Your task to perform on an android device: search for starred emails in the gmail app Image 0: 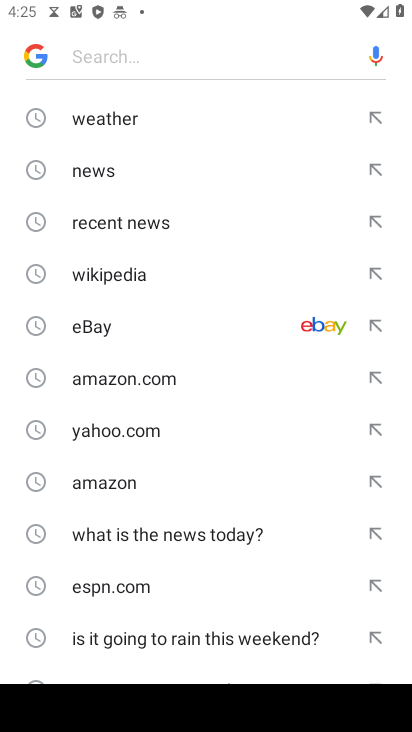
Step 0: press back button
Your task to perform on an android device: search for starred emails in the gmail app Image 1: 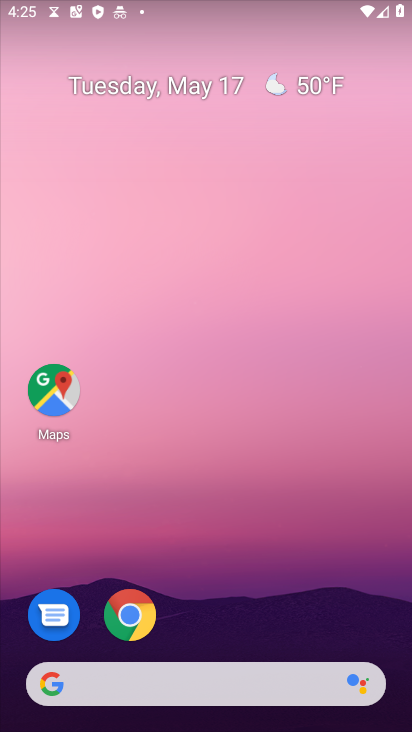
Step 1: drag from (295, 641) to (112, 118)
Your task to perform on an android device: search for starred emails in the gmail app Image 2: 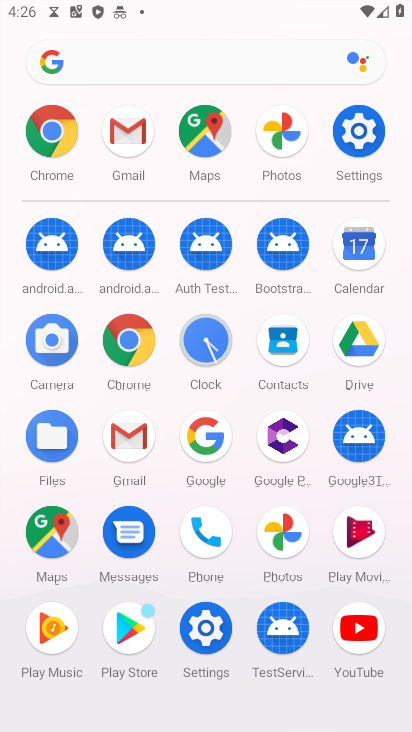
Step 2: click (133, 436)
Your task to perform on an android device: search for starred emails in the gmail app Image 3: 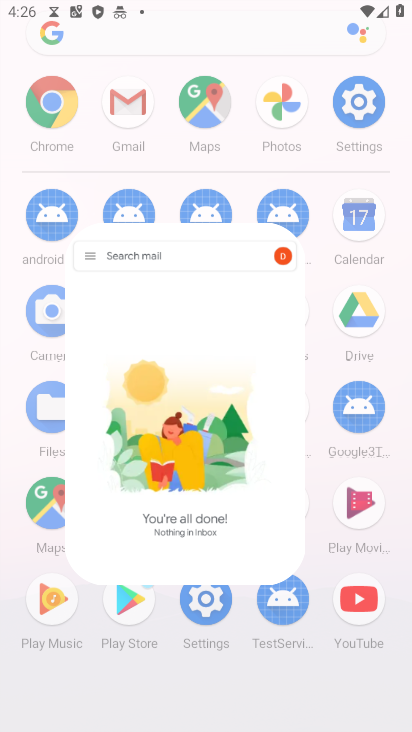
Step 3: click (133, 436)
Your task to perform on an android device: search for starred emails in the gmail app Image 4: 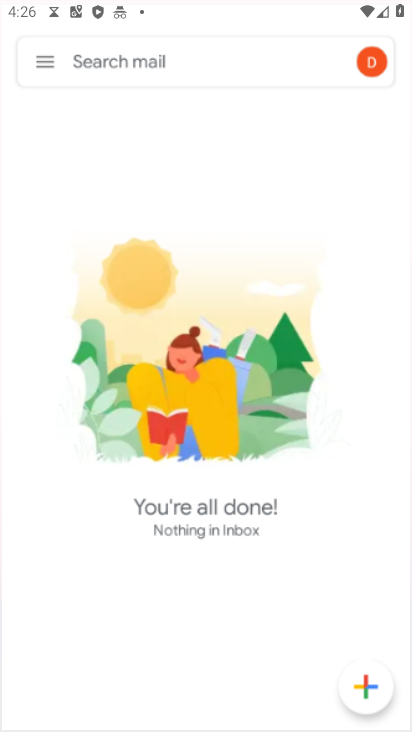
Step 4: click (133, 436)
Your task to perform on an android device: search for starred emails in the gmail app Image 5: 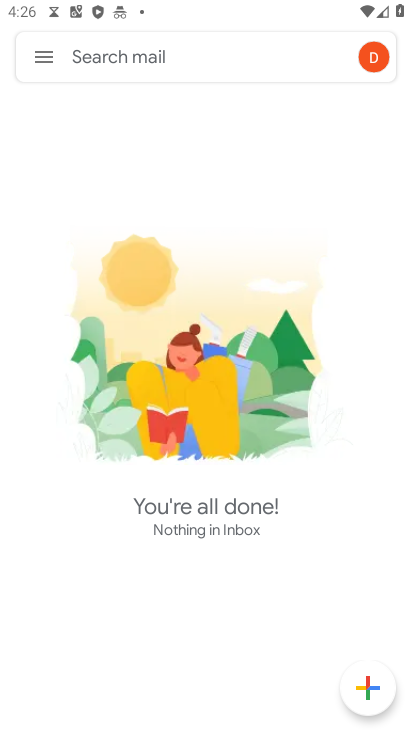
Step 5: click (40, 57)
Your task to perform on an android device: search for starred emails in the gmail app Image 6: 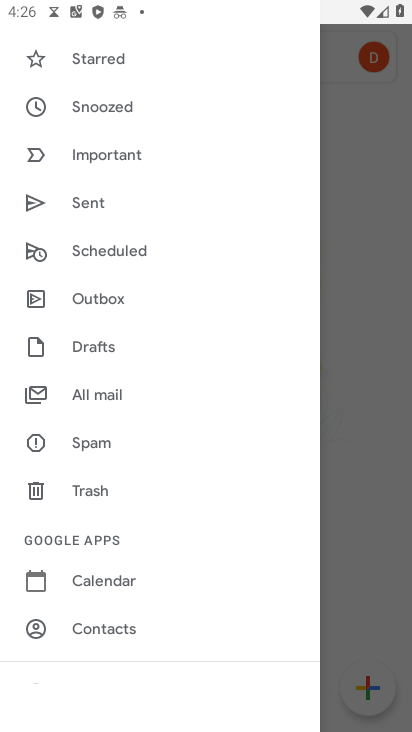
Step 6: click (69, 55)
Your task to perform on an android device: search for starred emails in the gmail app Image 7: 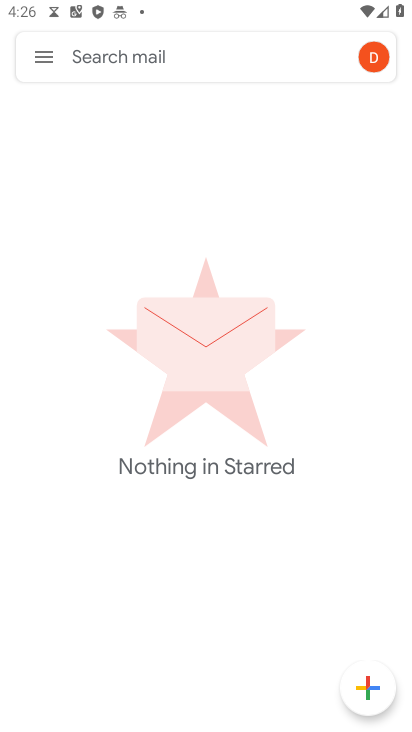
Step 7: task complete